Your task to perform on an android device: turn off smart reply in the gmail app Image 0: 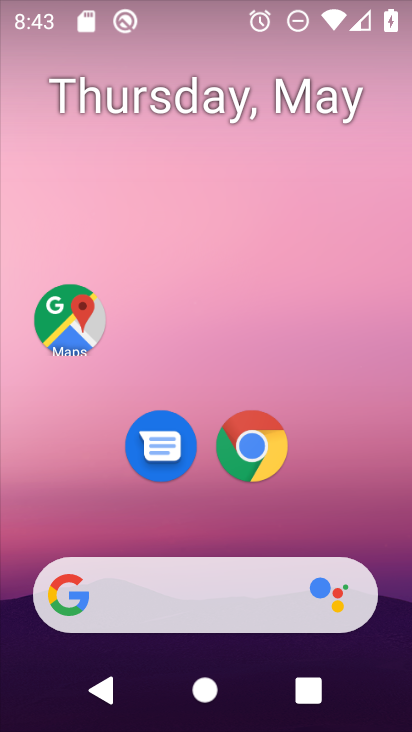
Step 0: drag from (341, 485) to (344, 202)
Your task to perform on an android device: turn off smart reply in the gmail app Image 1: 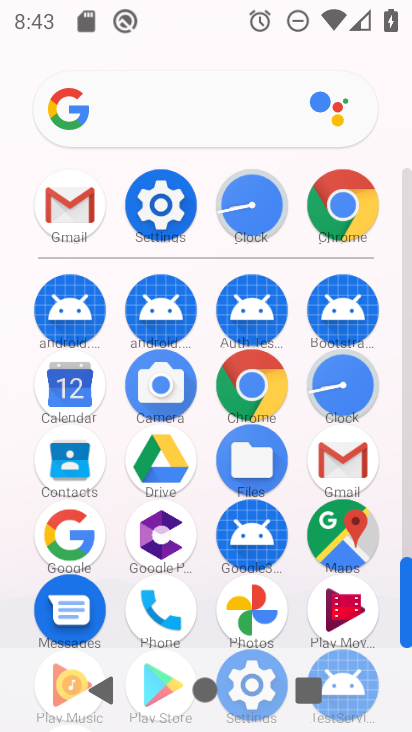
Step 1: click (344, 460)
Your task to perform on an android device: turn off smart reply in the gmail app Image 2: 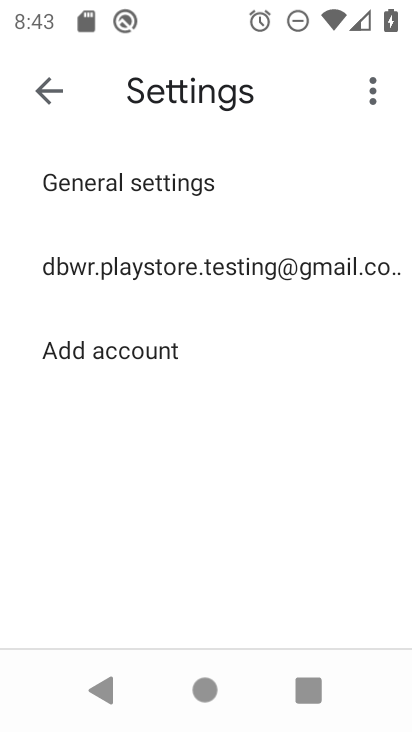
Step 2: click (250, 281)
Your task to perform on an android device: turn off smart reply in the gmail app Image 3: 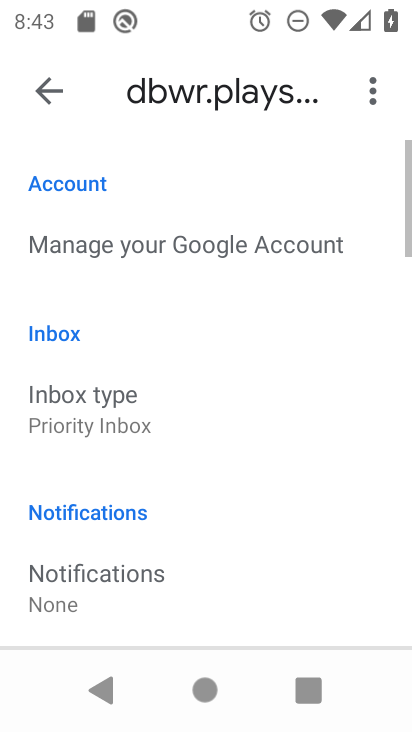
Step 3: drag from (243, 557) to (249, 223)
Your task to perform on an android device: turn off smart reply in the gmail app Image 4: 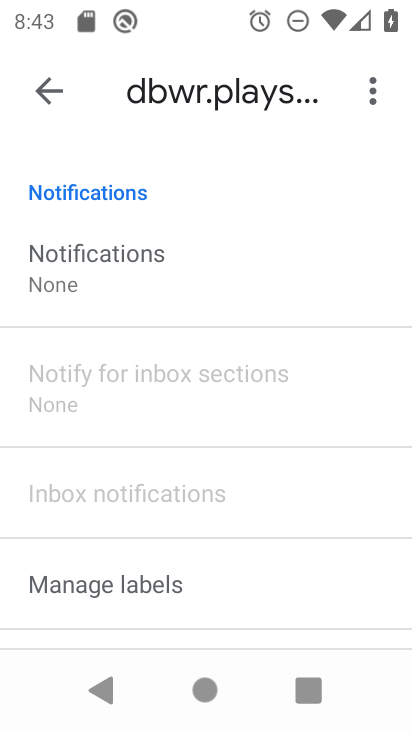
Step 4: drag from (225, 501) to (228, 78)
Your task to perform on an android device: turn off smart reply in the gmail app Image 5: 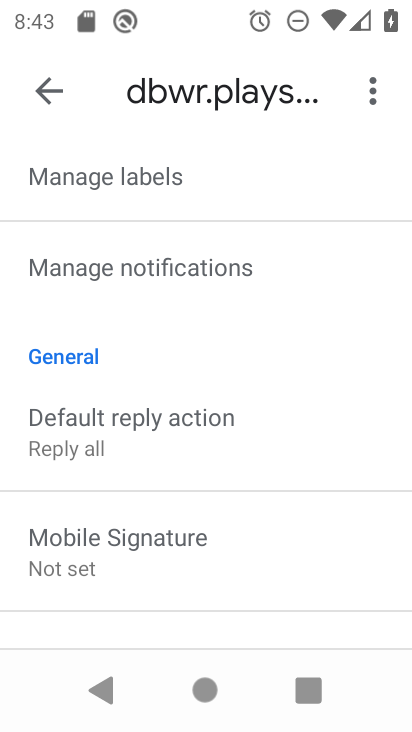
Step 5: drag from (219, 535) to (252, 243)
Your task to perform on an android device: turn off smart reply in the gmail app Image 6: 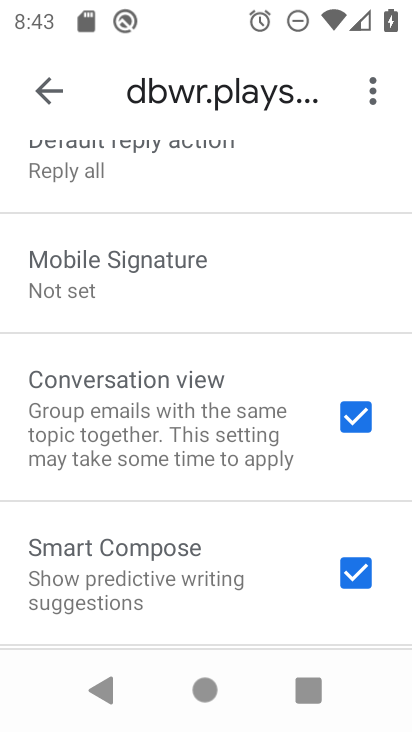
Step 6: drag from (184, 584) to (220, 250)
Your task to perform on an android device: turn off smart reply in the gmail app Image 7: 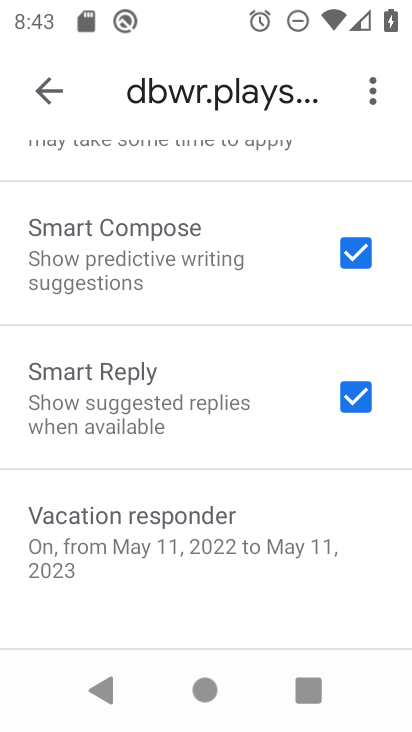
Step 7: click (344, 398)
Your task to perform on an android device: turn off smart reply in the gmail app Image 8: 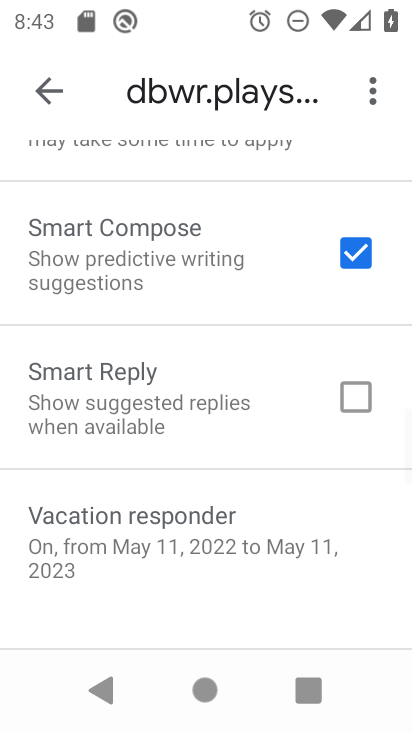
Step 8: task complete